Your task to perform on an android device: turn on location history Image 0: 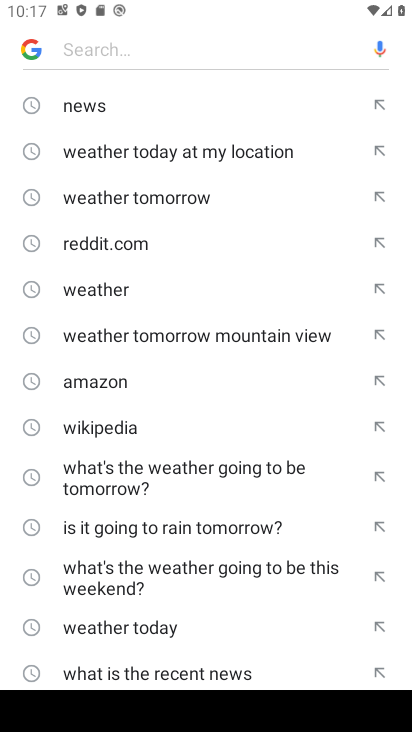
Step 0: press home button
Your task to perform on an android device: turn on location history Image 1: 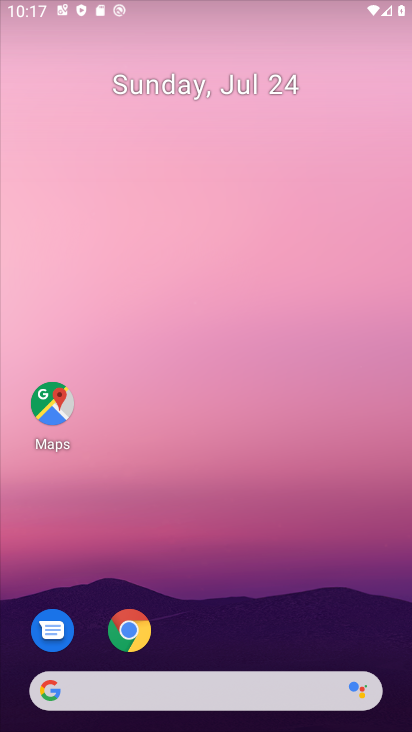
Step 1: drag from (238, 607) to (276, 192)
Your task to perform on an android device: turn on location history Image 2: 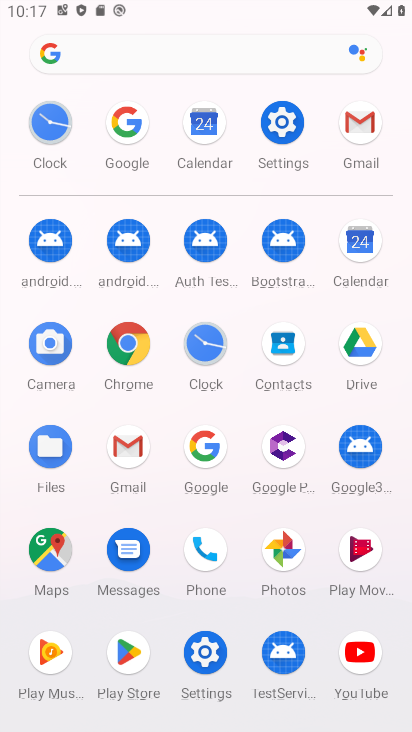
Step 2: click (275, 156)
Your task to perform on an android device: turn on location history Image 3: 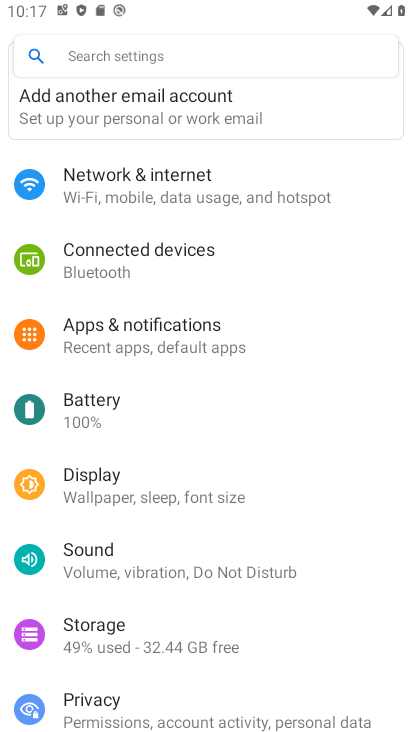
Step 3: drag from (161, 597) to (161, 287)
Your task to perform on an android device: turn on location history Image 4: 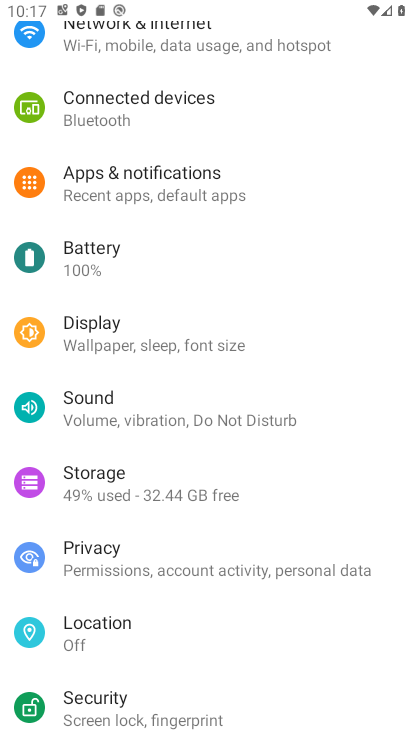
Step 4: click (109, 641)
Your task to perform on an android device: turn on location history Image 5: 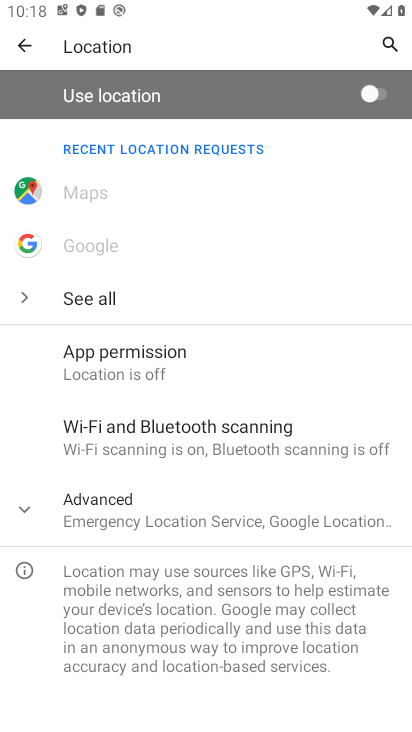
Step 5: click (209, 525)
Your task to perform on an android device: turn on location history Image 6: 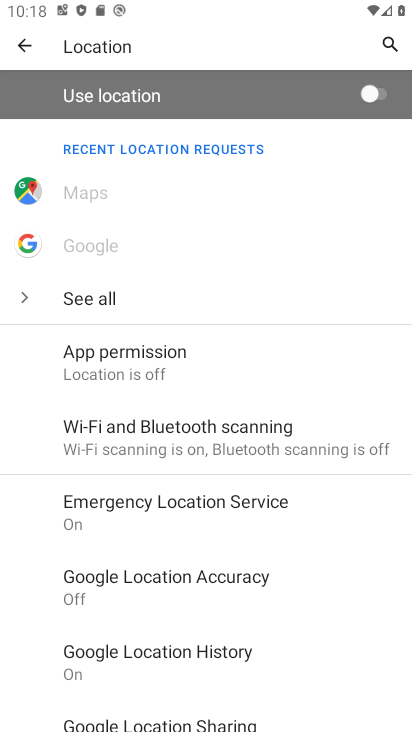
Step 6: click (202, 669)
Your task to perform on an android device: turn on location history Image 7: 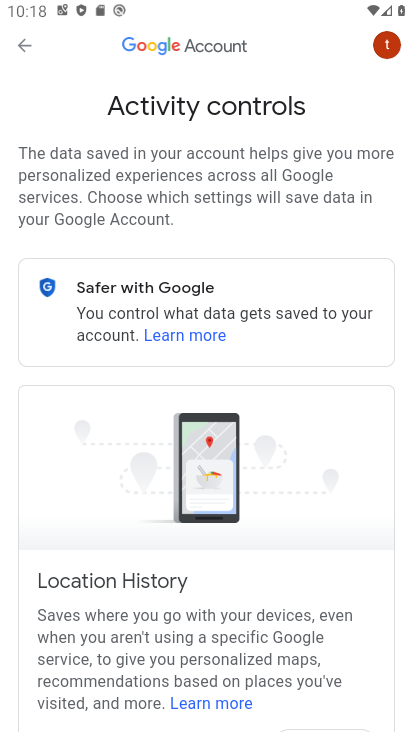
Step 7: task complete